Your task to perform on an android device: Go to Amazon Image 0: 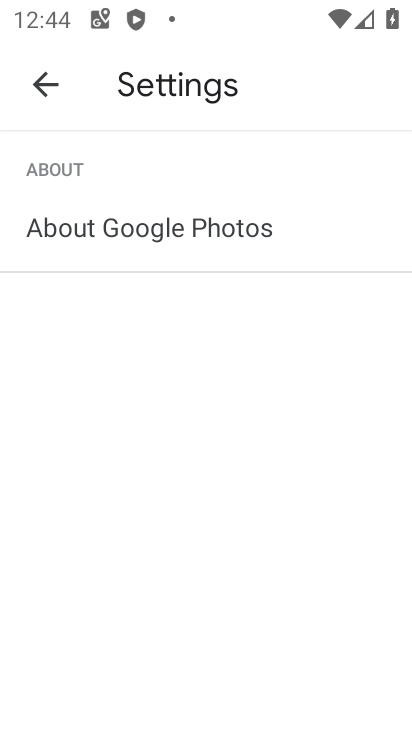
Step 0: press home button
Your task to perform on an android device: Go to Amazon Image 1: 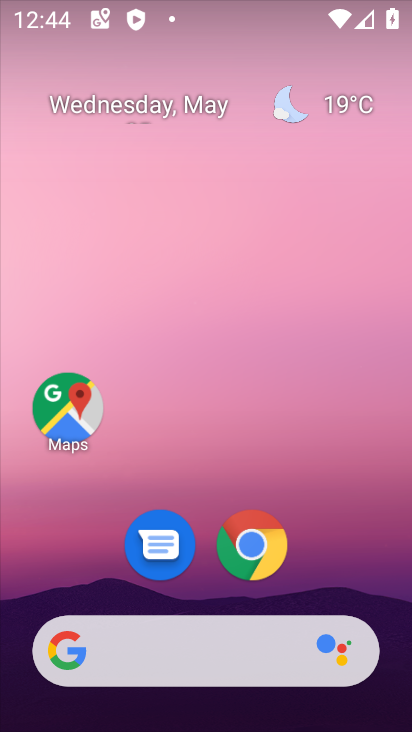
Step 1: click (276, 527)
Your task to perform on an android device: Go to Amazon Image 2: 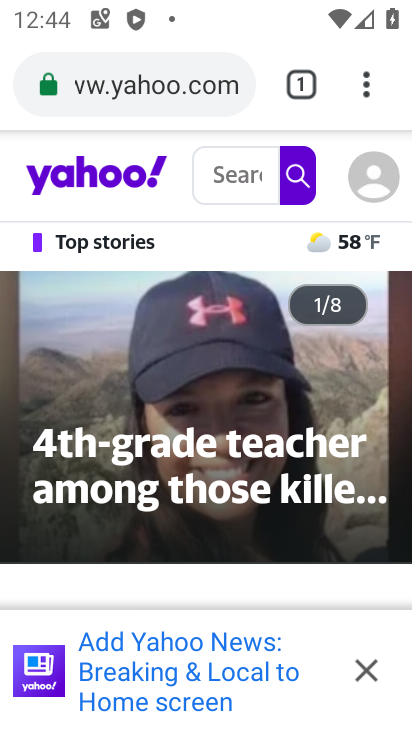
Step 2: click (311, 86)
Your task to perform on an android device: Go to Amazon Image 3: 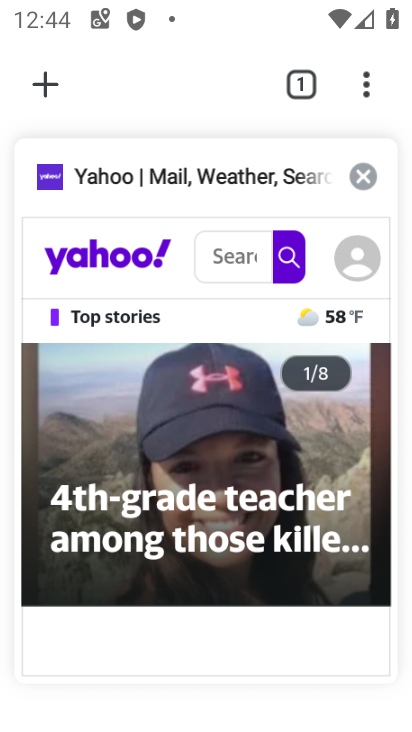
Step 3: click (59, 92)
Your task to perform on an android device: Go to Amazon Image 4: 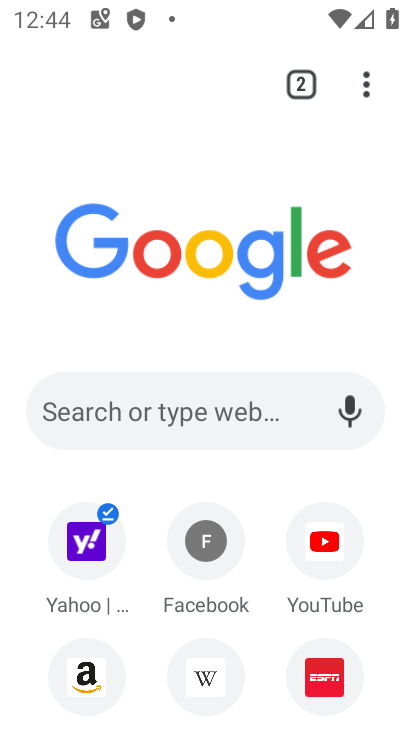
Step 4: click (87, 665)
Your task to perform on an android device: Go to Amazon Image 5: 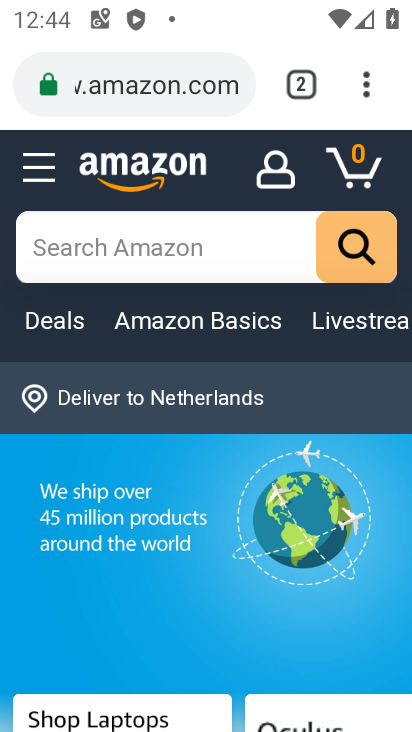
Step 5: task complete